Your task to perform on an android device: Show me productivity apps on the Play Store Image 0: 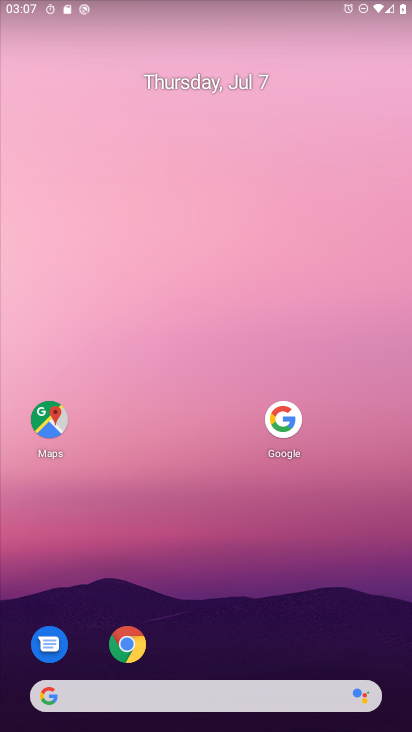
Step 0: drag from (215, 701) to (342, 169)
Your task to perform on an android device: Show me productivity apps on the Play Store Image 1: 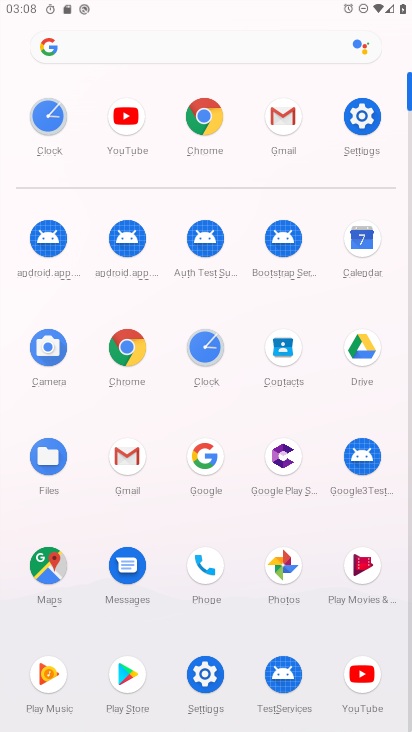
Step 1: click (128, 682)
Your task to perform on an android device: Show me productivity apps on the Play Store Image 2: 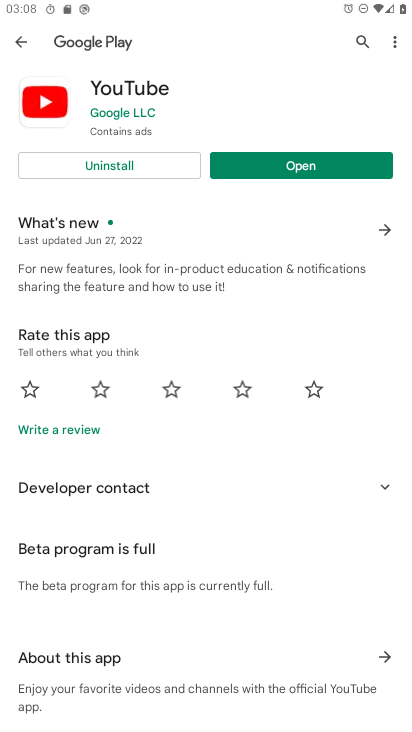
Step 2: click (19, 36)
Your task to perform on an android device: Show me productivity apps on the Play Store Image 3: 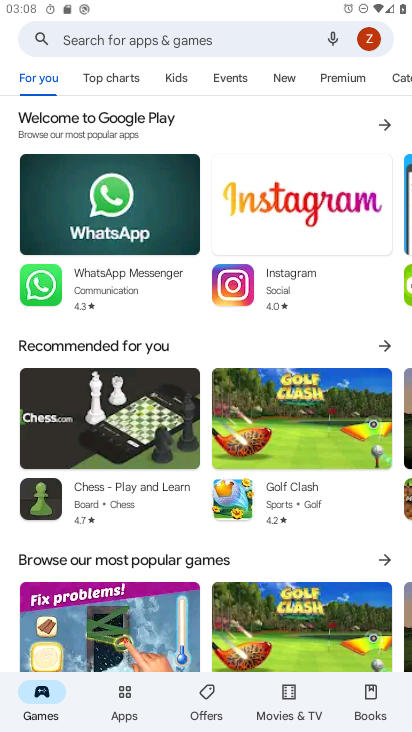
Step 3: click (118, 709)
Your task to perform on an android device: Show me productivity apps on the Play Store Image 4: 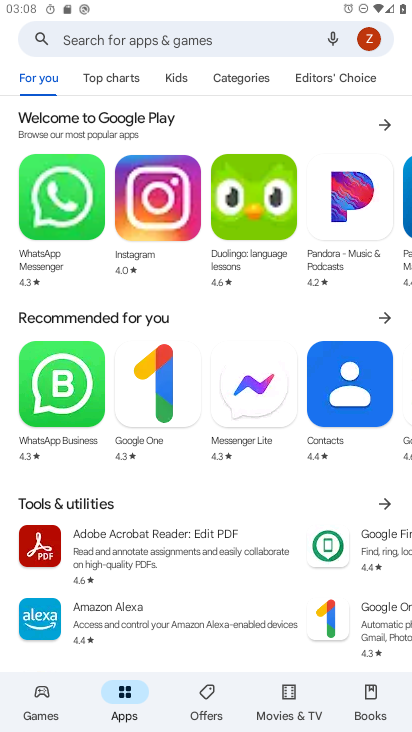
Step 4: click (253, 72)
Your task to perform on an android device: Show me productivity apps on the Play Store Image 5: 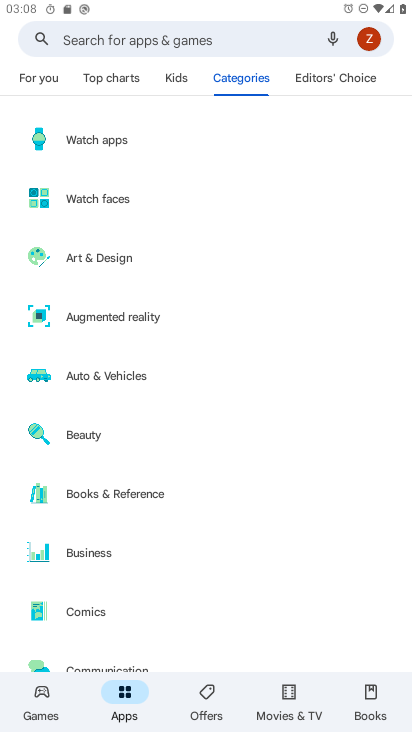
Step 5: drag from (155, 607) to (307, 43)
Your task to perform on an android device: Show me productivity apps on the Play Store Image 6: 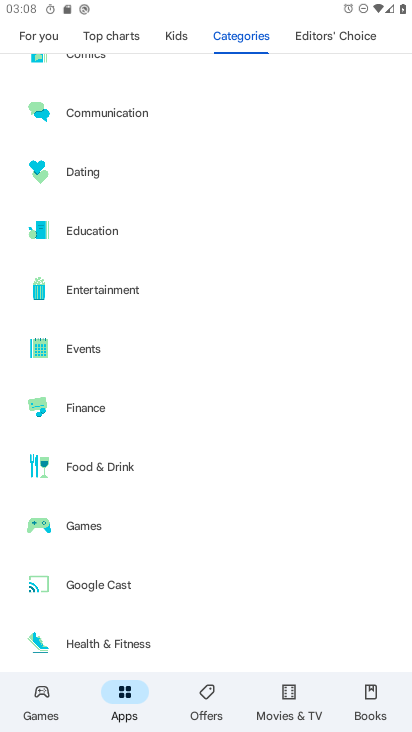
Step 6: drag from (171, 617) to (303, 175)
Your task to perform on an android device: Show me productivity apps on the Play Store Image 7: 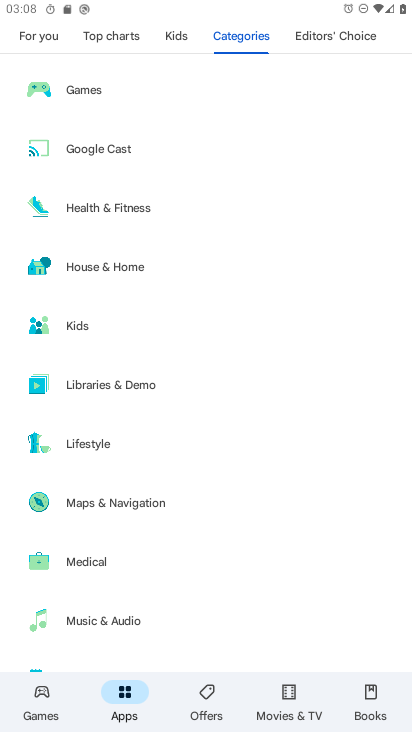
Step 7: drag from (165, 584) to (339, 91)
Your task to perform on an android device: Show me productivity apps on the Play Store Image 8: 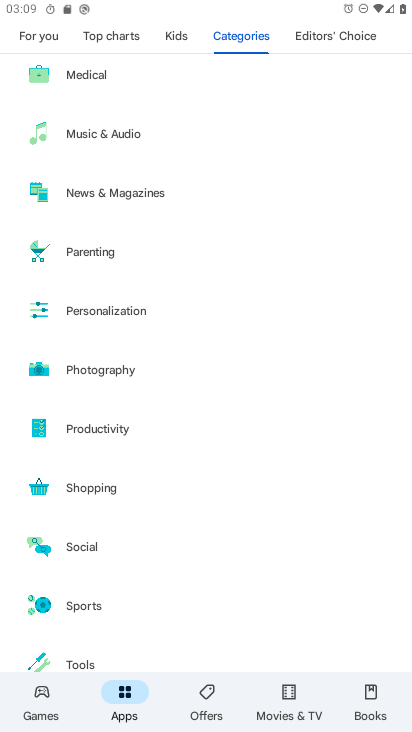
Step 8: click (110, 425)
Your task to perform on an android device: Show me productivity apps on the Play Store Image 9: 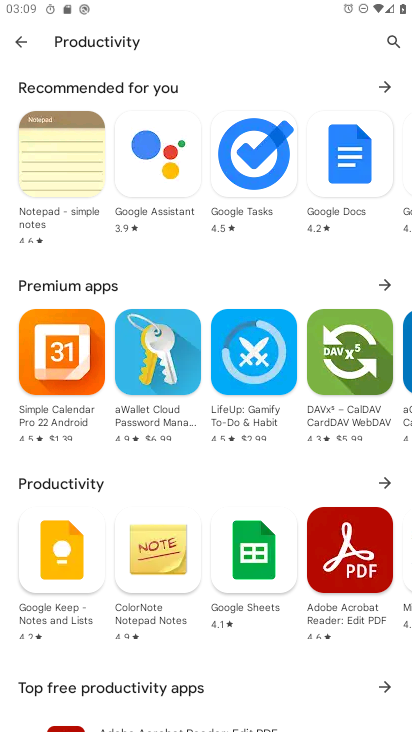
Step 9: task complete